Your task to perform on an android device: turn notification dots off Image 0: 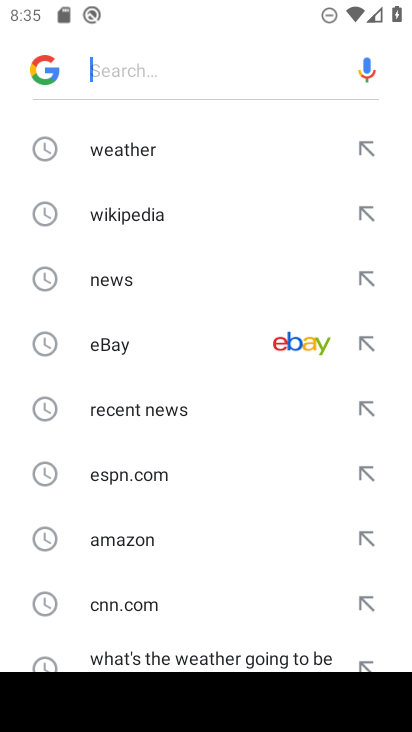
Step 0: press home button
Your task to perform on an android device: turn notification dots off Image 1: 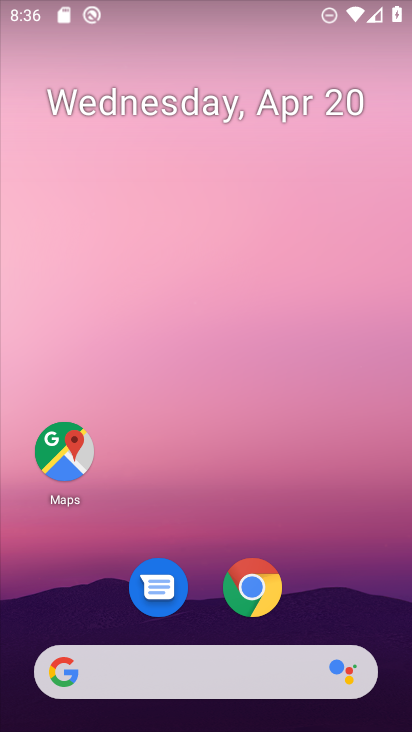
Step 1: drag from (361, 605) to (313, 222)
Your task to perform on an android device: turn notification dots off Image 2: 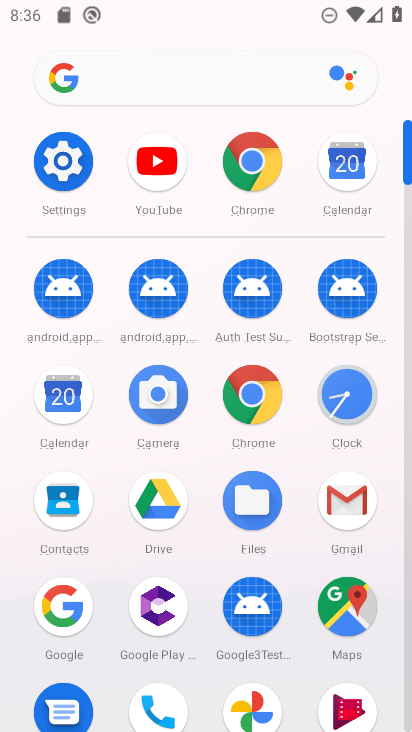
Step 2: click (43, 177)
Your task to perform on an android device: turn notification dots off Image 3: 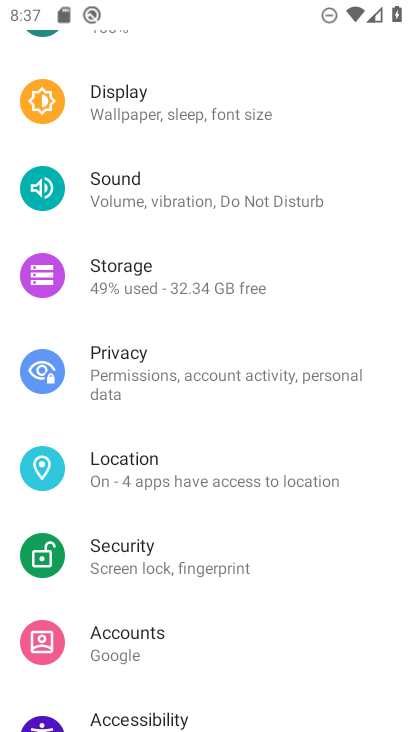
Step 3: drag from (214, 253) to (206, 397)
Your task to perform on an android device: turn notification dots off Image 4: 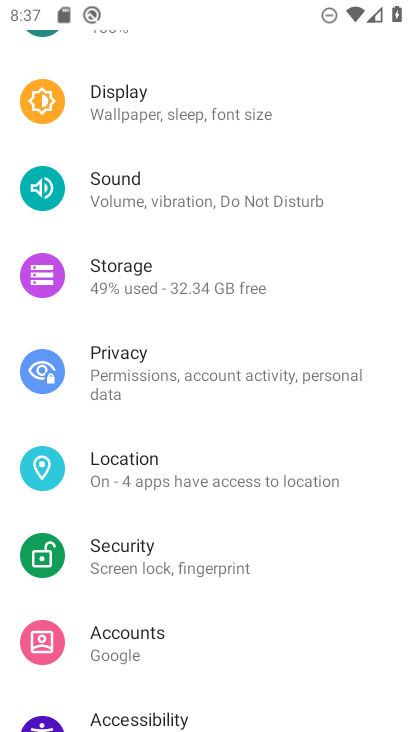
Step 4: drag from (232, 408) to (211, 729)
Your task to perform on an android device: turn notification dots off Image 5: 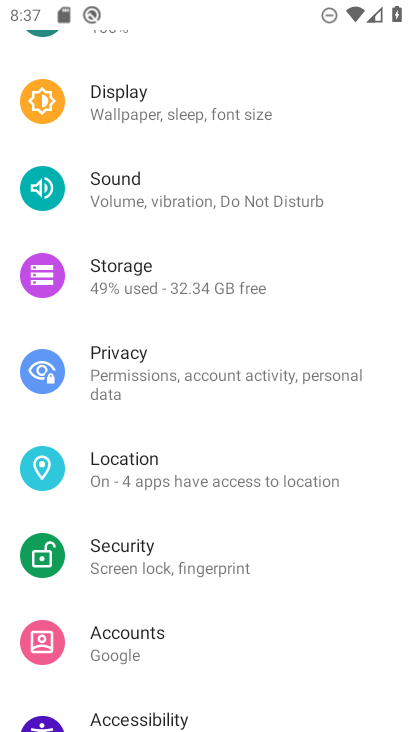
Step 5: drag from (339, 291) to (316, 615)
Your task to perform on an android device: turn notification dots off Image 6: 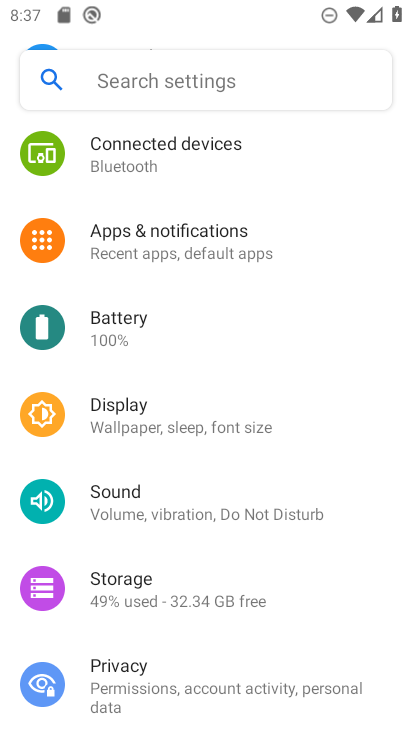
Step 6: drag from (293, 234) to (292, 428)
Your task to perform on an android device: turn notification dots off Image 7: 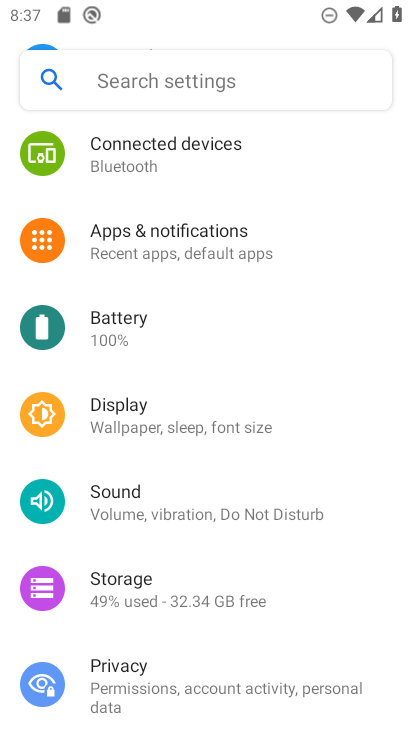
Step 7: click (274, 245)
Your task to perform on an android device: turn notification dots off Image 8: 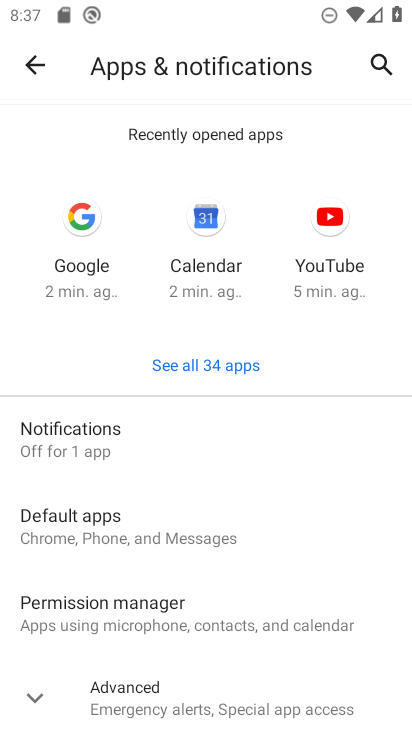
Step 8: click (127, 679)
Your task to perform on an android device: turn notification dots off Image 9: 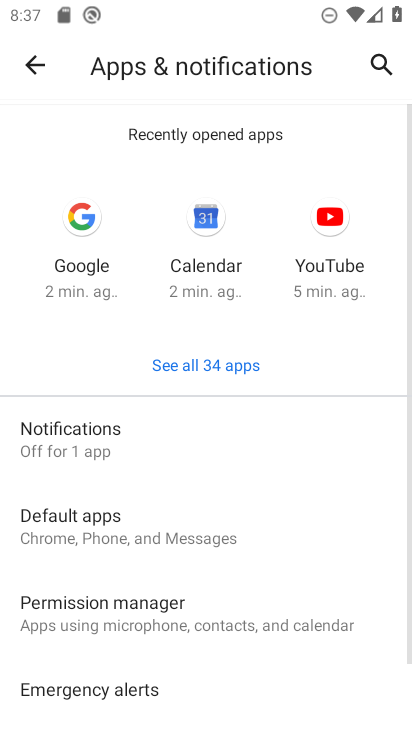
Step 9: drag from (193, 628) to (240, 280)
Your task to perform on an android device: turn notification dots off Image 10: 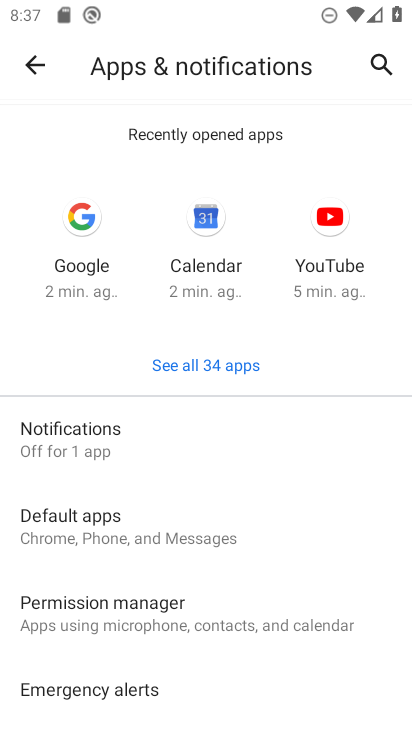
Step 10: drag from (192, 499) to (187, 290)
Your task to perform on an android device: turn notification dots off Image 11: 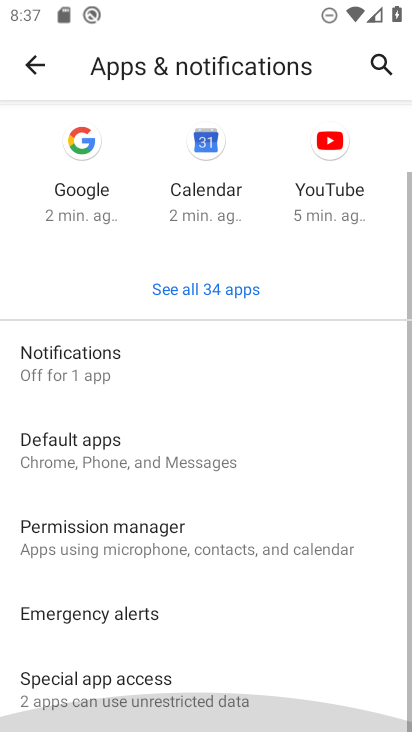
Step 11: drag from (96, 366) to (104, 177)
Your task to perform on an android device: turn notification dots off Image 12: 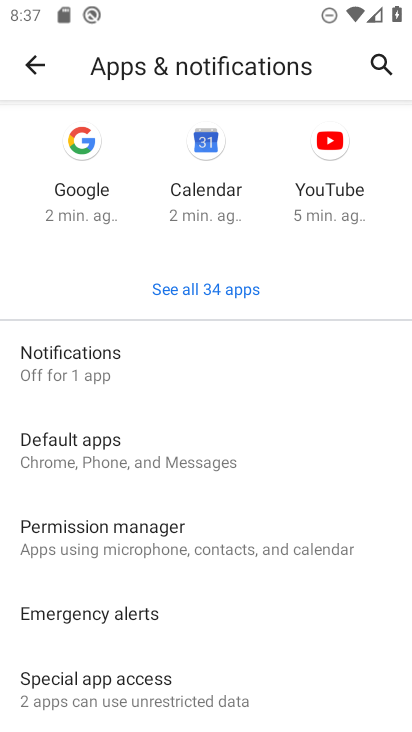
Step 12: click (186, 387)
Your task to perform on an android device: turn notification dots off Image 13: 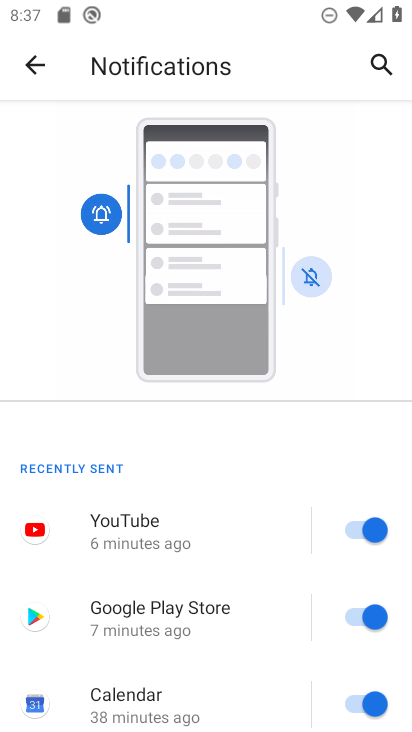
Step 13: drag from (204, 416) to (219, 111)
Your task to perform on an android device: turn notification dots off Image 14: 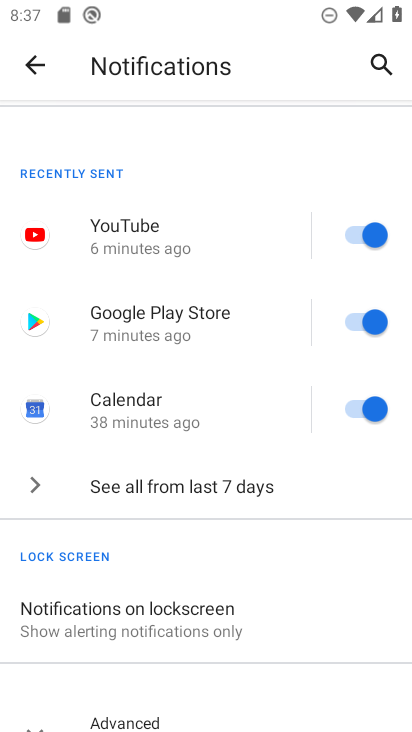
Step 14: drag from (197, 672) to (228, 293)
Your task to perform on an android device: turn notification dots off Image 15: 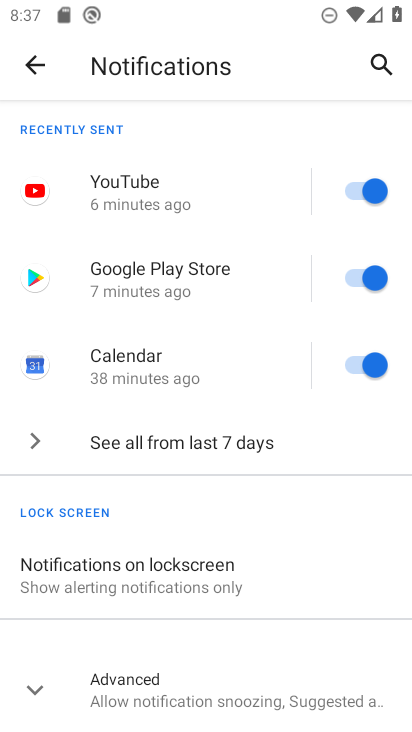
Step 15: click (249, 656)
Your task to perform on an android device: turn notification dots off Image 16: 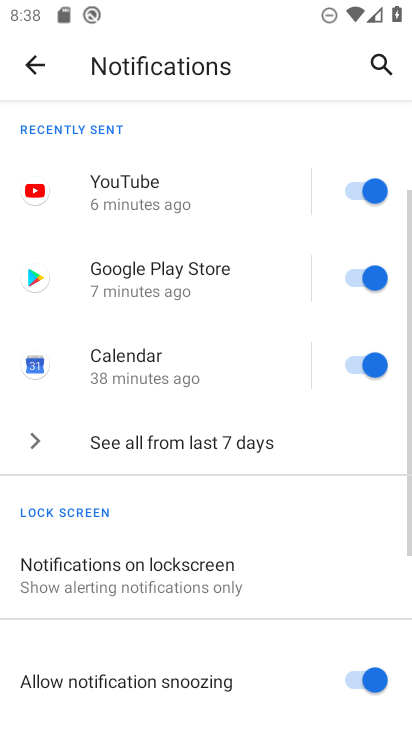
Step 16: drag from (249, 645) to (285, 328)
Your task to perform on an android device: turn notification dots off Image 17: 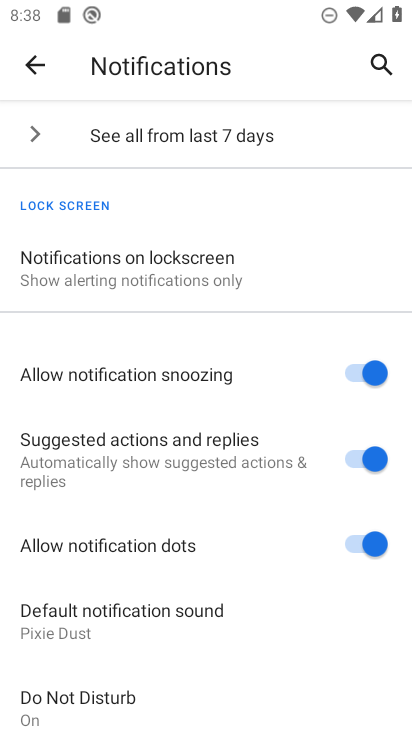
Step 17: drag from (308, 573) to (360, 251)
Your task to perform on an android device: turn notification dots off Image 18: 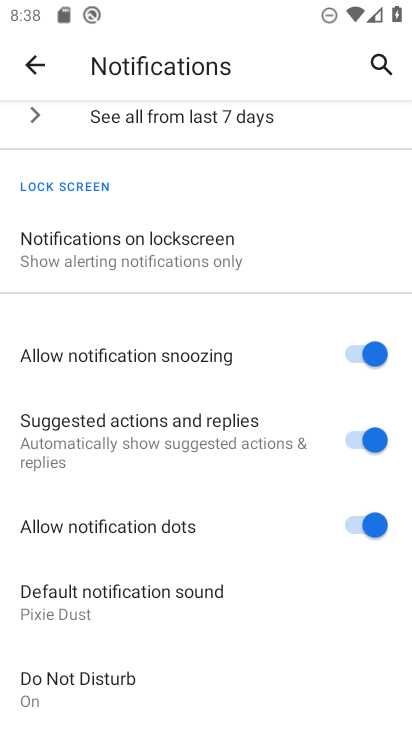
Step 18: click (152, 516)
Your task to perform on an android device: turn notification dots off Image 19: 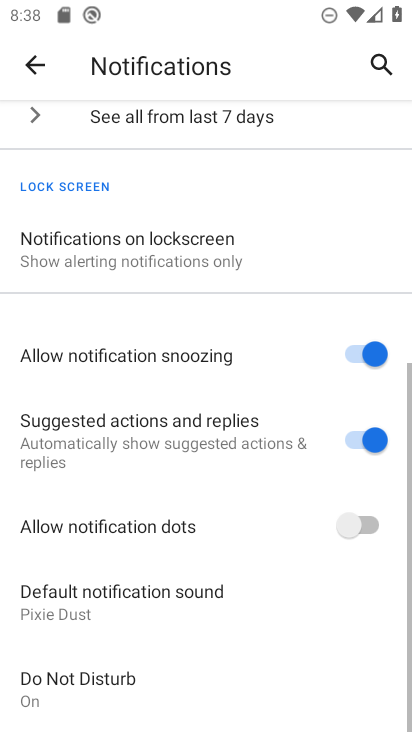
Step 19: task complete